Your task to perform on an android device: Clear the cart on walmart.com. Add razer huntsman to the cart on walmart.com Image 0: 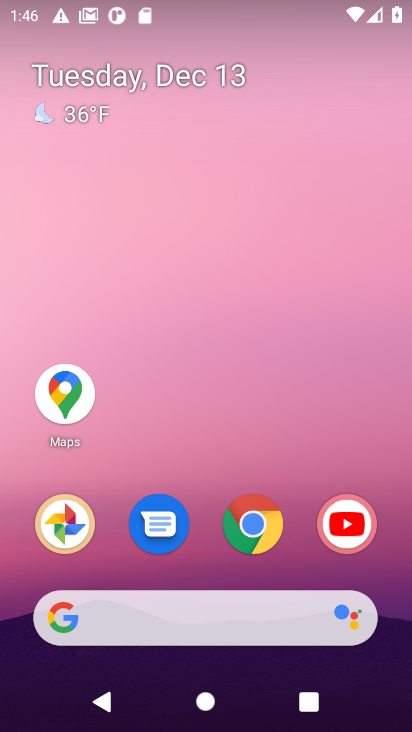
Step 0: click (259, 527)
Your task to perform on an android device: Clear the cart on walmart.com. Add razer huntsman to the cart on walmart.com Image 1: 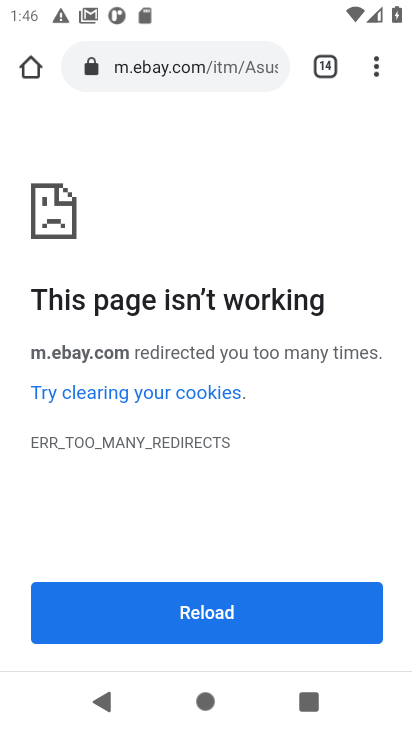
Step 1: click (155, 69)
Your task to perform on an android device: Clear the cart on walmart.com. Add razer huntsman to the cart on walmart.com Image 2: 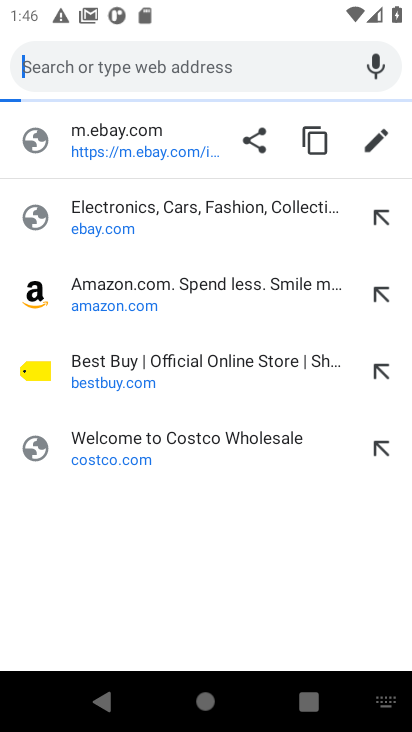
Step 2: type "walmart.com"
Your task to perform on an android device: Clear the cart on walmart.com. Add razer huntsman to the cart on walmart.com Image 3: 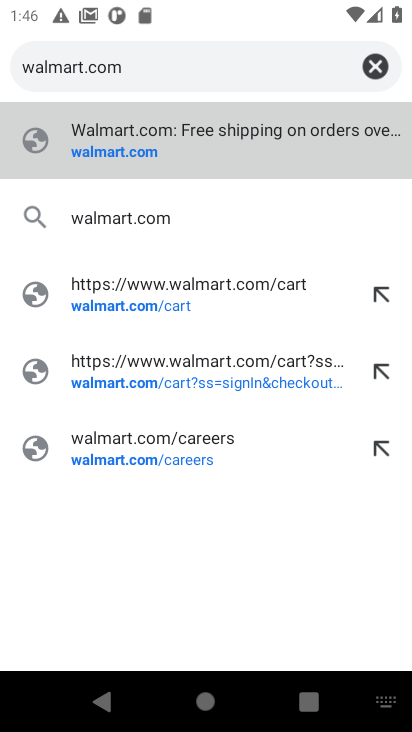
Step 3: click (91, 150)
Your task to perform on an android device: Clear the cart on walmart.com. Add razer huntsman to the cart on walmart.com Image 4: 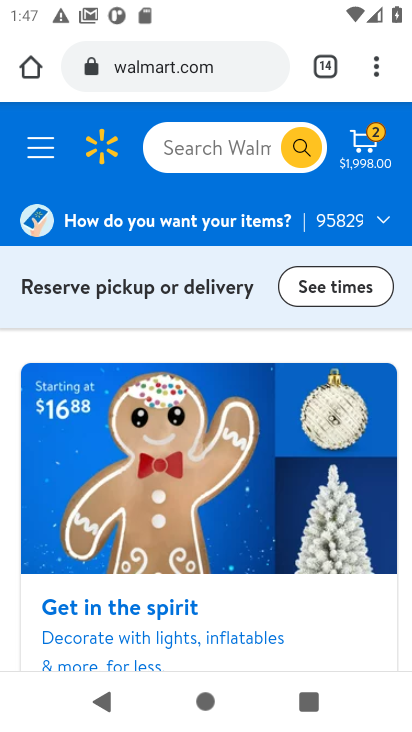
Step 4: click (360, 157)
Your task to perform on an android device: Clear the cart on walmart.com. Add razer huntsman to the cart on walmart.com Image 5: 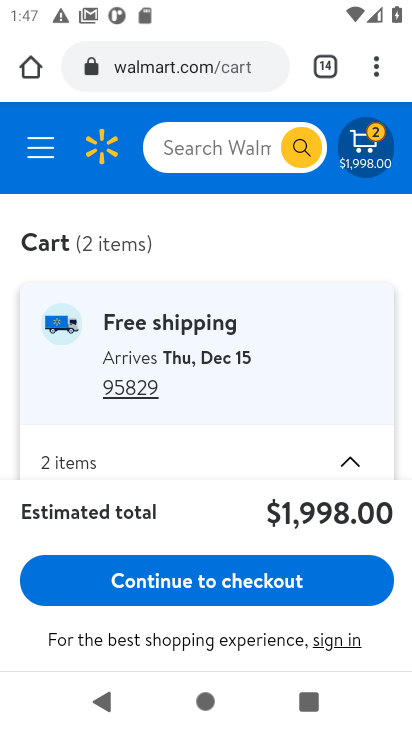
Step 5: drag from (206, 421) to (208, 185)
Your task to perform on an android device: Clear the cart on walmart.com. Add razer huntsman to the cart on walmart.com Image 6: 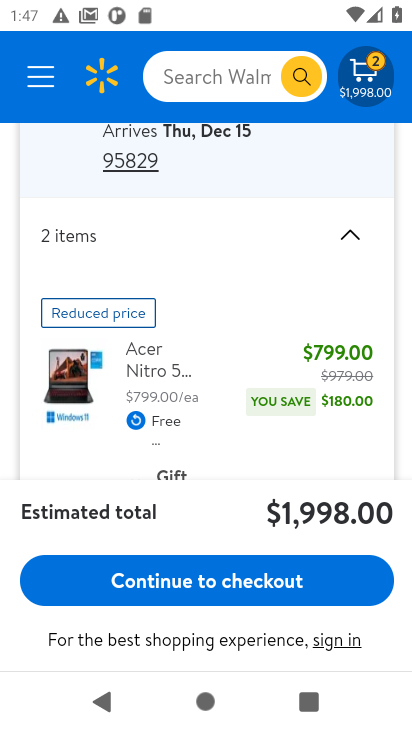
Step 6: drag from (187, 368) to (178, 213)
Your task to perform on an android device: Clear the cart on walmart.com. Add razer huntsman to the cart on walmart.com Image 7: 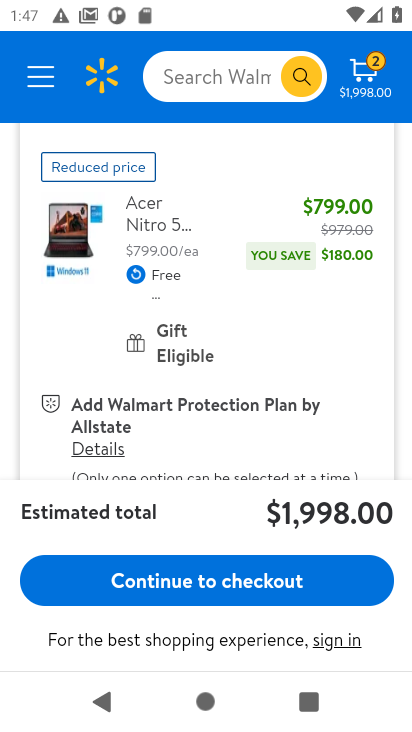
Step 7: drag from (147, 416) to (153, 224)
Your task to perform on an android device: Clear the cart on walmart.com. Add razer huntsman to the cart on walmart.com Image 8: 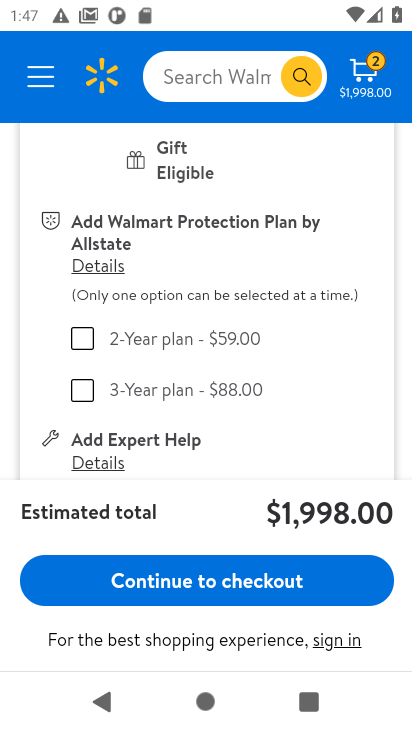
Step 8: drag from (167, 434) to (165, 241)
Your task to perform on an android device: Clear the cart on walmart.com. Add razer huntsman to the cart on walmart.com Image 9: 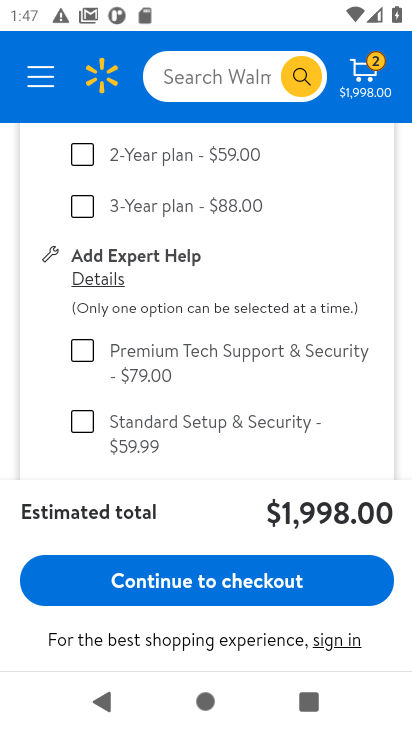
Step 9: drag from (166, 416) to (161, 235)
Your task to perform on an android device: Clear the cart on walmart.com. Add razer huntsman to the cart on walmart.com Image 10: 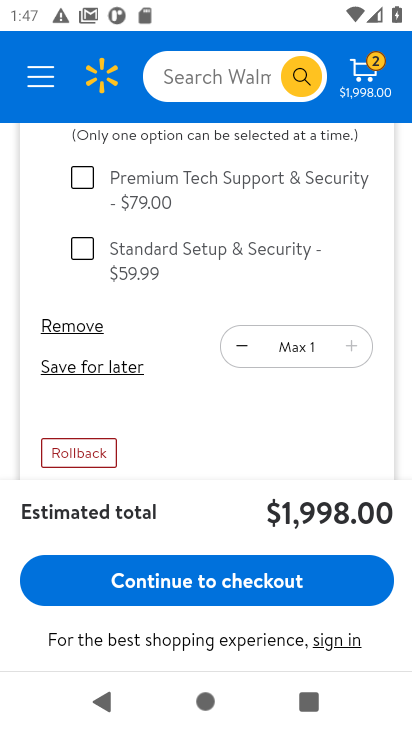
Step 10: click (61, 328)
Your task to perform on an android device: Clear the cart on walmart.com. Add razer huntsman to the cart on walmart.com Image 11: 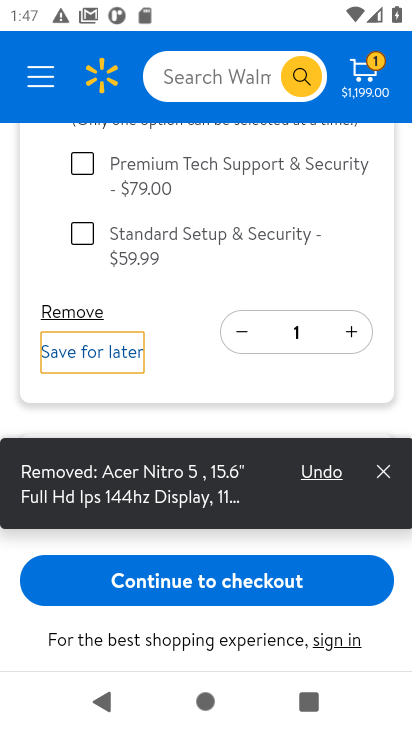
Step 11: click (63, 314)
Your task to perform on an android device: Clear the cart on walmart.com. Add razer huntsman to the cart on walmart.com Image 12: 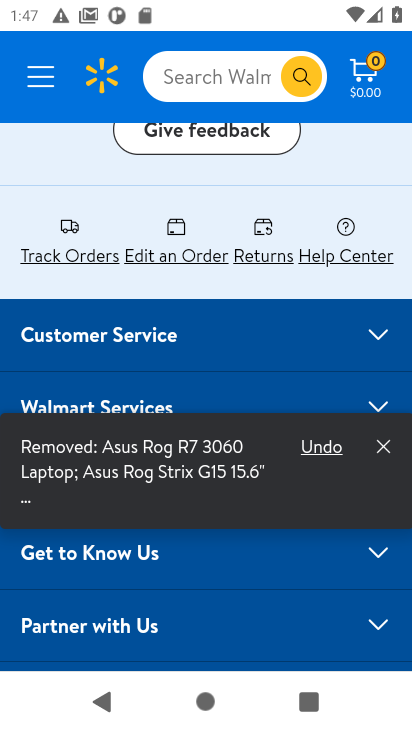
Step 12: drag from (218, 322) to (207, 477)
Your task to perform on an android device: Clear the cart on walmart.com. Add razer huntsman to the cart on walmart.com Image 13: 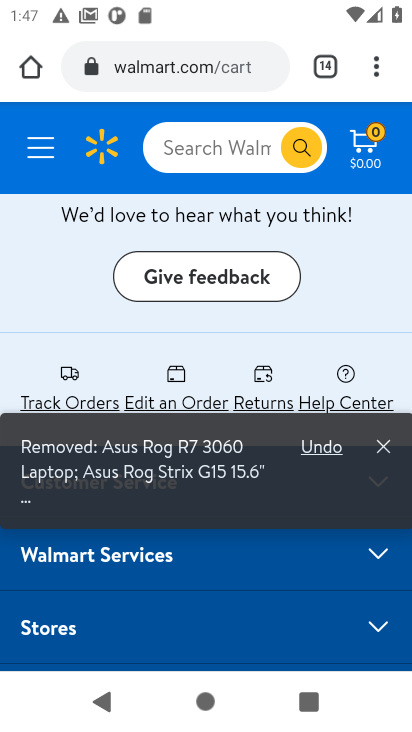
Step 13: drag from (226, 280) to (216, 515)
Your task to perform on an android device: Clear the cart on walmart.com. Add razer huntsman to the cart on walmart.com Image 14: 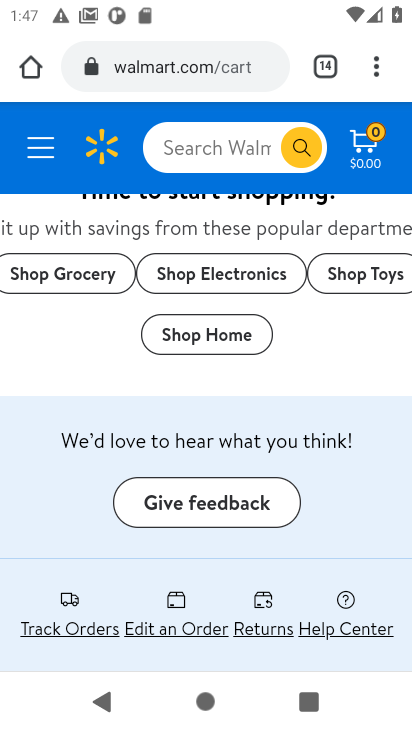
Step 14: drag from (184, 332) to (167, 543)
Your task to perform on an android device: Clear the cart on walmart.com. Add razer huntsman to the cart on walmart.com Image 15: 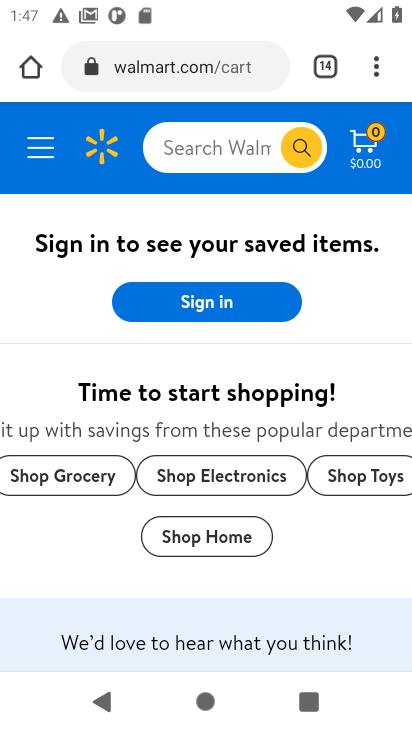
Step 15: drag from (243, 332) to (238, 512)
Your task to perform on an android device: Clear the cart on walmart.com. Add razer huntsman to the cart on walmart.com Image 16: 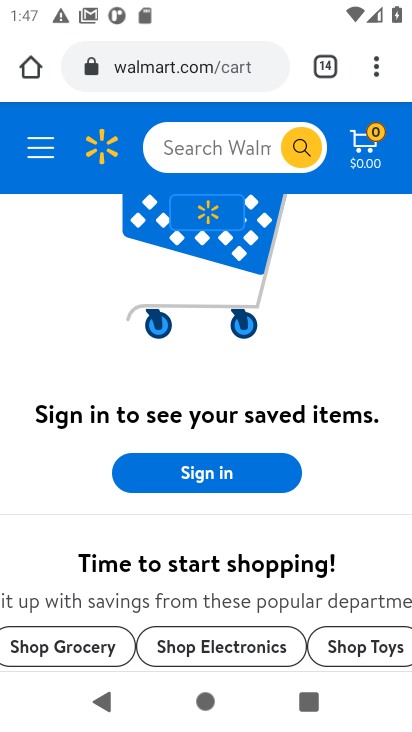
Step 16: click (185, 151)
Your task to perform on an android device: Clear the cart on walmart.com. Add razer huntsman to the cart on walmart.com Image 17: 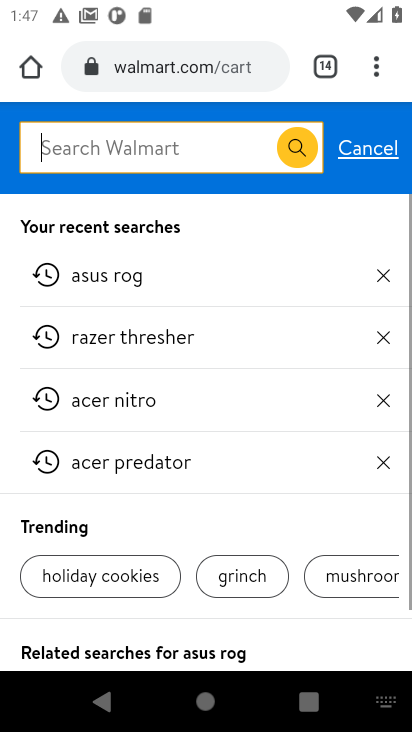
Step 17: type "razer huntsman"
Your task to perform on an android device: Clear the cart on walmart.com. Add razer huntsman to the cart on walmart.com Image 18: 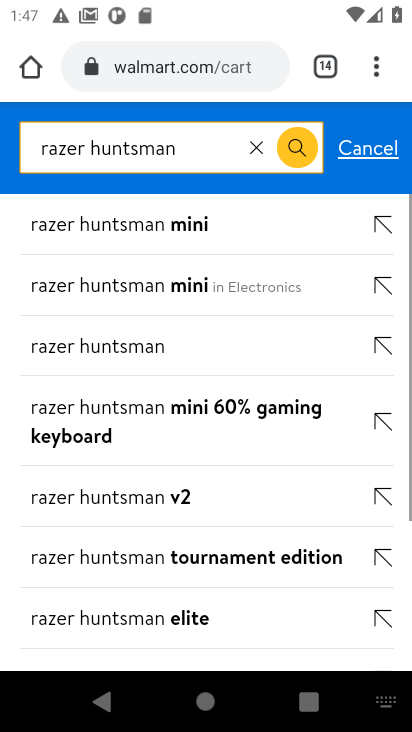
Step 18: click (117, 351)
Your task to perform on an android device: Clear the cart on walmart.com. Add razer huntsman to the cart on walmart.com Image 19: 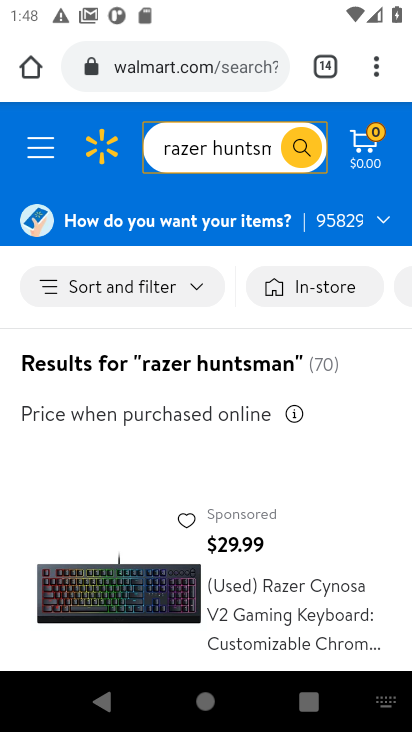
Step 19: drag from (165, 460) to (163, 305)
Your task to perform on an android device: Clear the cart on walmart.com. Add razer huntsman to the cart on walmart.com Image 20: 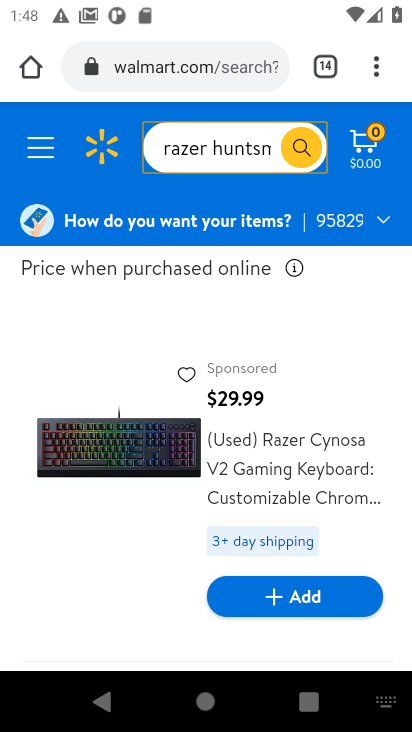
Step 20: drag from (154, 498) to (153, 275)
Your task to perform on an android device: Clear the cart on walmart.com. Add razer huntsman to the cart on walmart.com Image 21: 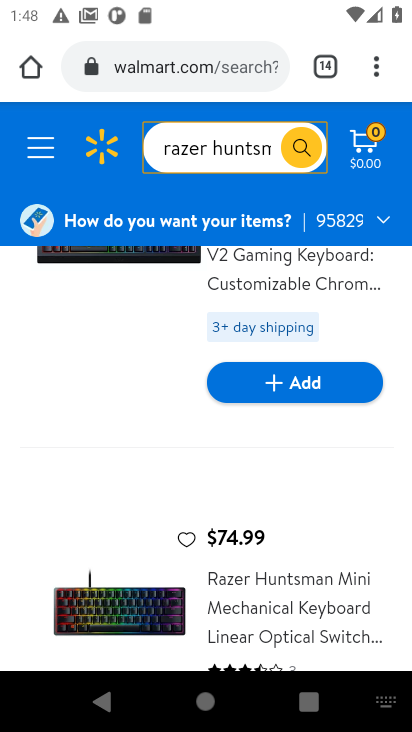
Step 21: drag from (155, 528) to (161, 334)
Your task to perform on an android device: Clear the cart on walmart.com. Add razer huntsman to the cart on walmart.com Image 22: 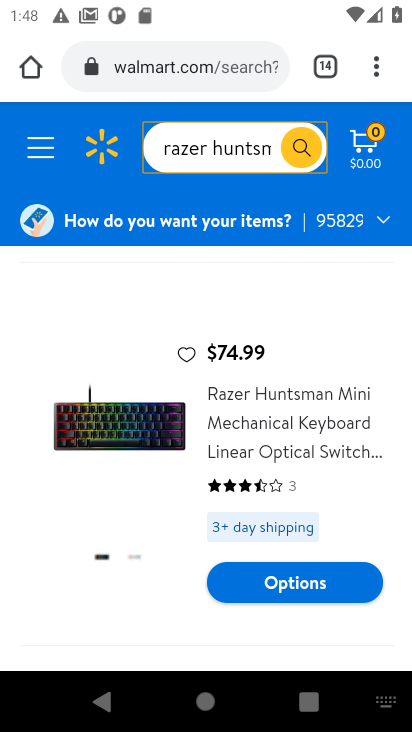
Step 22: click (302, 451)
Your task to perform on an android device: Clear the cart on walmart.com. Add razer huntsman to the cart on walmart.com Image 23: 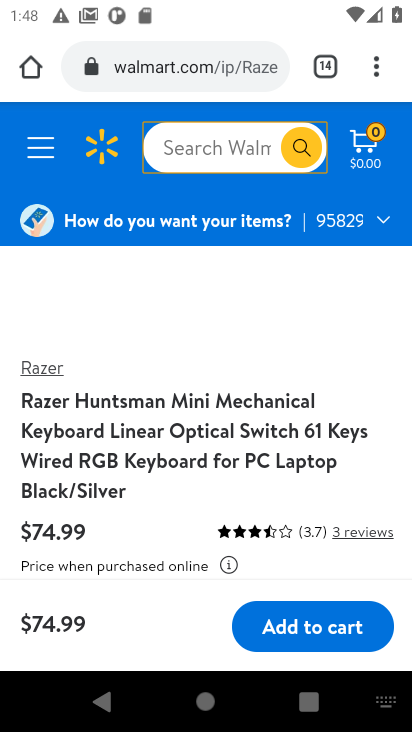
Step 23: click (304, 631)
Your task to perform on an android device: Clear the cart on walmart.com. Add razer huntsman to the cart on walmart.com Image 24: 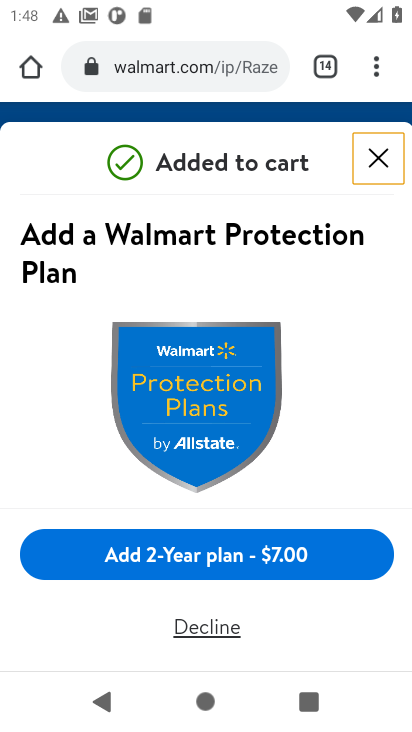
Step 24: task complete